Your task to perform on an android device: toggle notification dots Image 0: 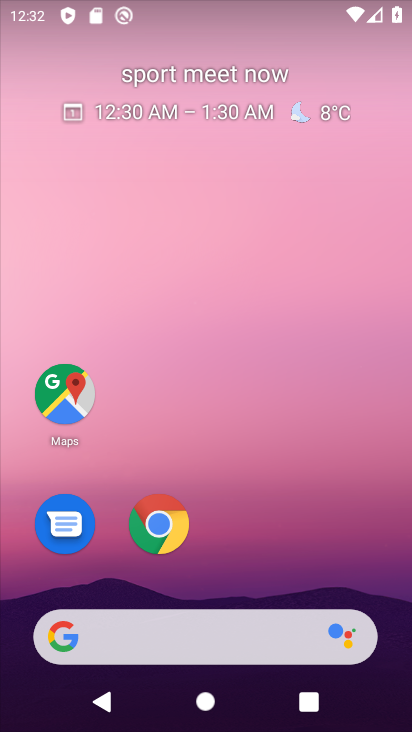
Step 0: drag from (324, 541) to (308, 14)
Your task to perform on an android device: toggle notification dots Image 1: 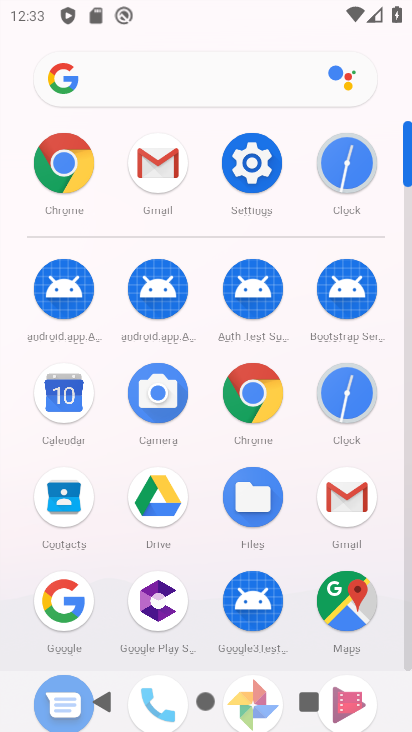
Step 1: click (249, 156)
Your task to perform on an android device: toggle notification dots Image 2: 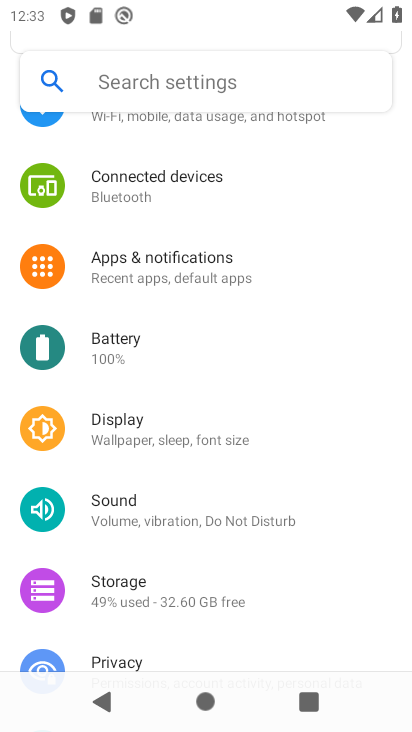
Step 2: click (222, 262)
Your task to perform on an android device: toggle notification dots Image 3: 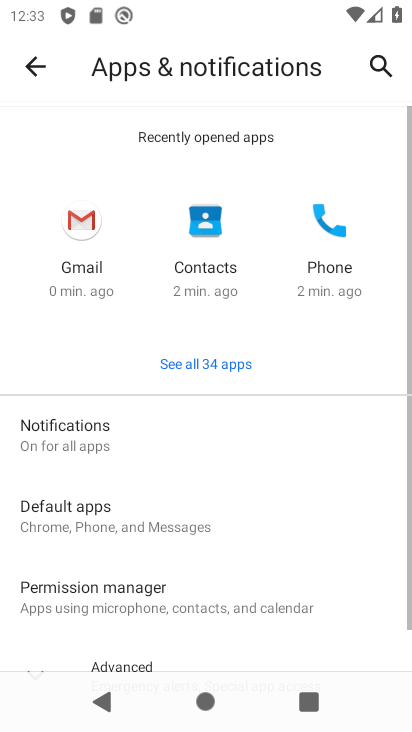
Step 3: click (156, 444)
Your task to perform on an android device: toggle notification dots Image 4: 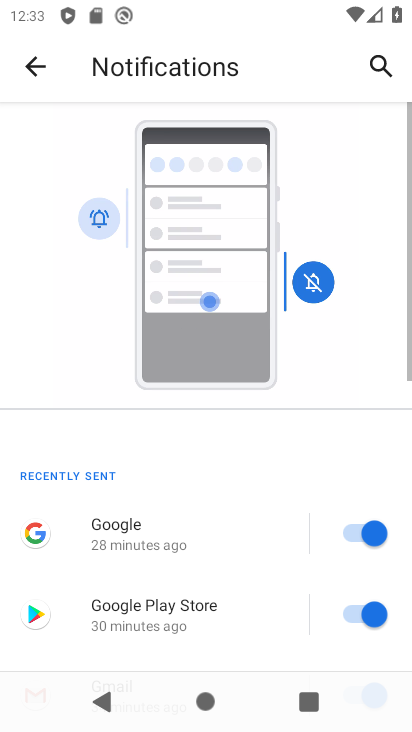
Step 4: drag from (187, 592) to (235, 233)
Your task to perform on an android device: toggle notification dots Image 5: 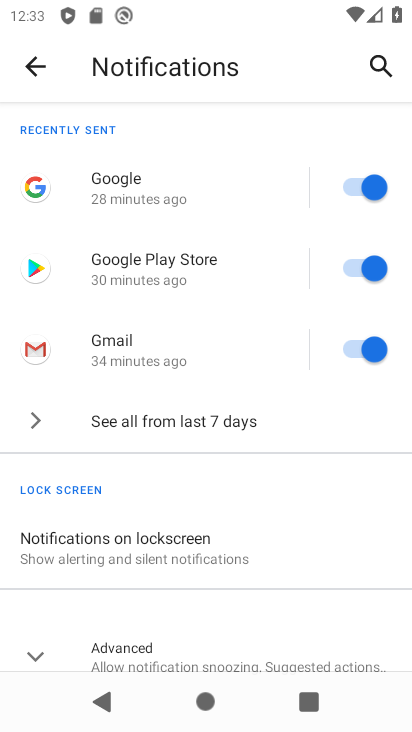
Step 5: click (36, 658)
Your task to perform on an android device: toggle notification dots Image 6: 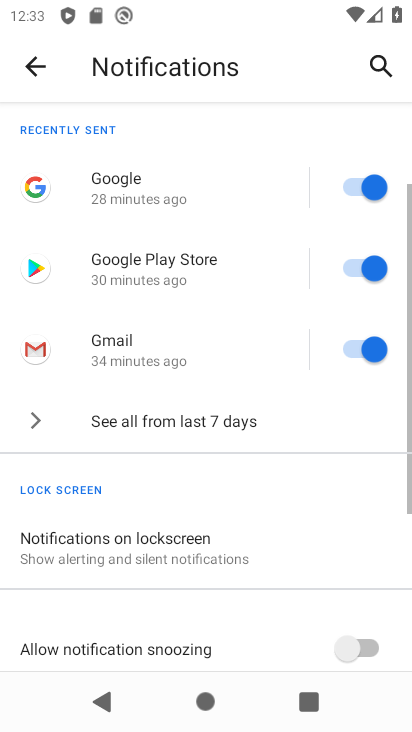
Step 6: drag from (224, 539) to (302, 146)
Your task to perform on an android device: toggle notification dots Image 7: 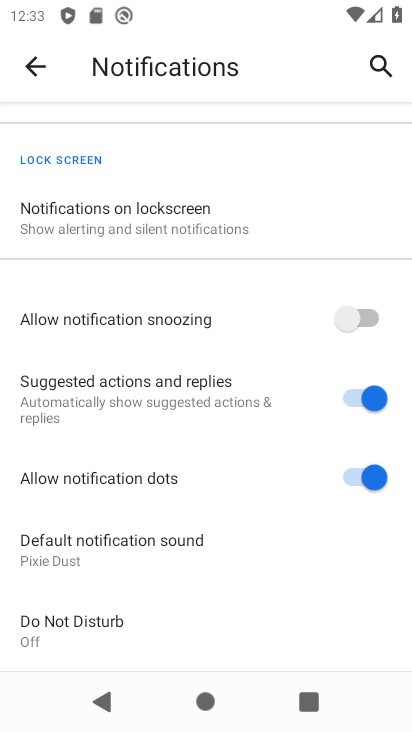
Step 7: click (348, 476)
Your task to perform on an android device: toggle notification dots Image 8: 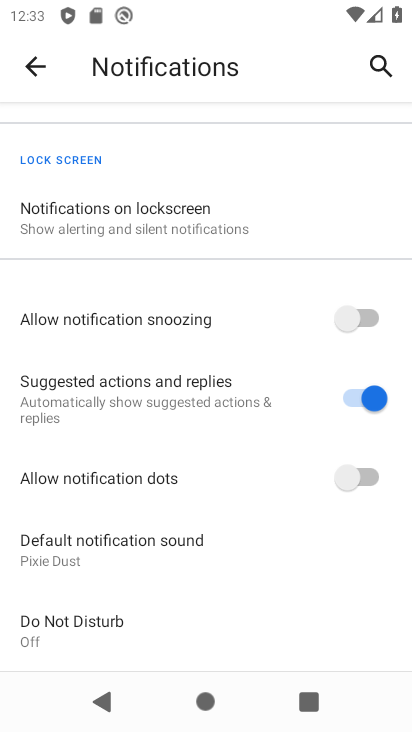
Step 8: task complete